Your task to perform on an android device: Open the Play Movies app and select the watchlist tab. Image 0: 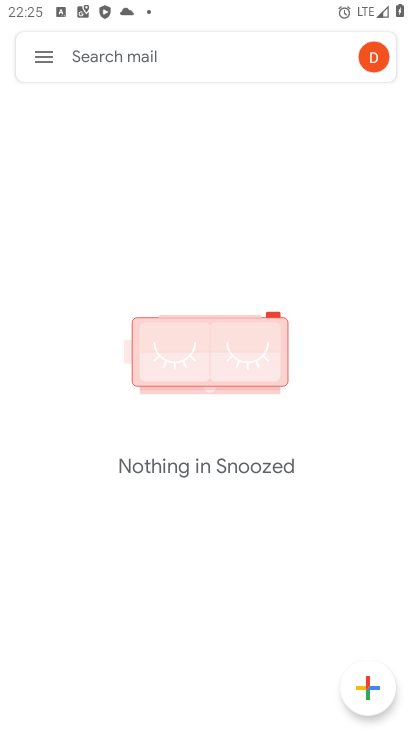
Step 0: press home button
Your task to perform on an android device: Open the Play Movies app and select the watchlist tab. Image 1: 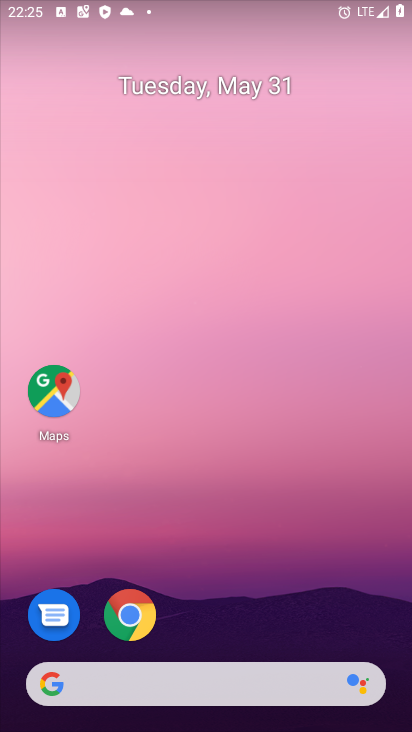
Step 1: drag from (390, 662) to (305, 125)
Your task to perform on an android device: Open the Play Movies app and select the watchlist tab. Image 2: 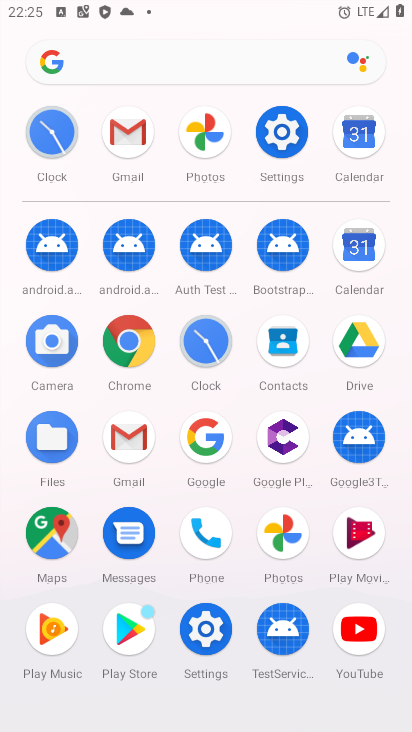
Step 2: click (362, 530)
Your task to perform on an android device: Open the Play Movies app and select the watchlist tab. Image 3: 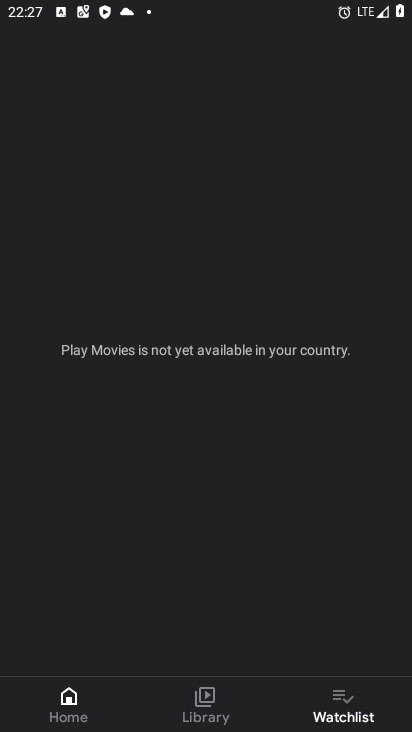
Step 3: click (335, 727)
Your task to perform on an android device: Open the Play Movies app and select the watchlist tab. Image 4: 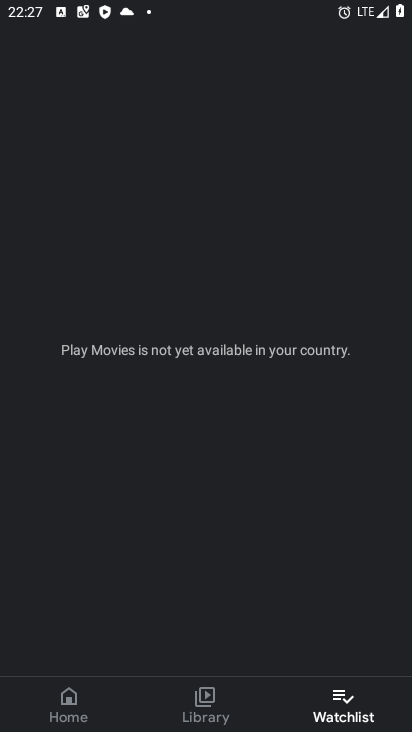
Step 4: task complete